Your task to perform on an android device: toggle javascript in the chrome app Image 0: 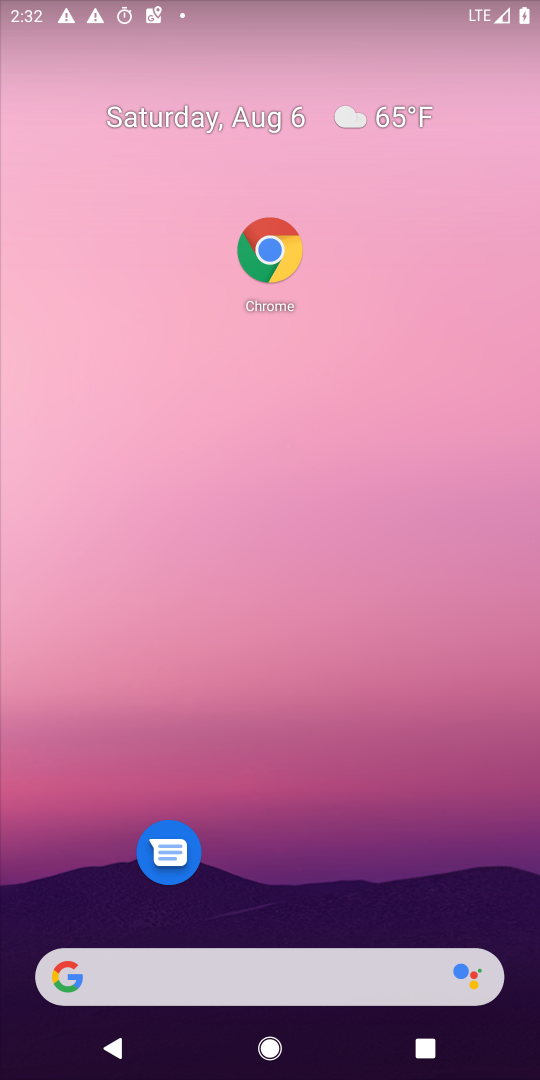
Step 0: press home button
Your task to perform on an android device: toggle javascript in the chrome app Image 1: 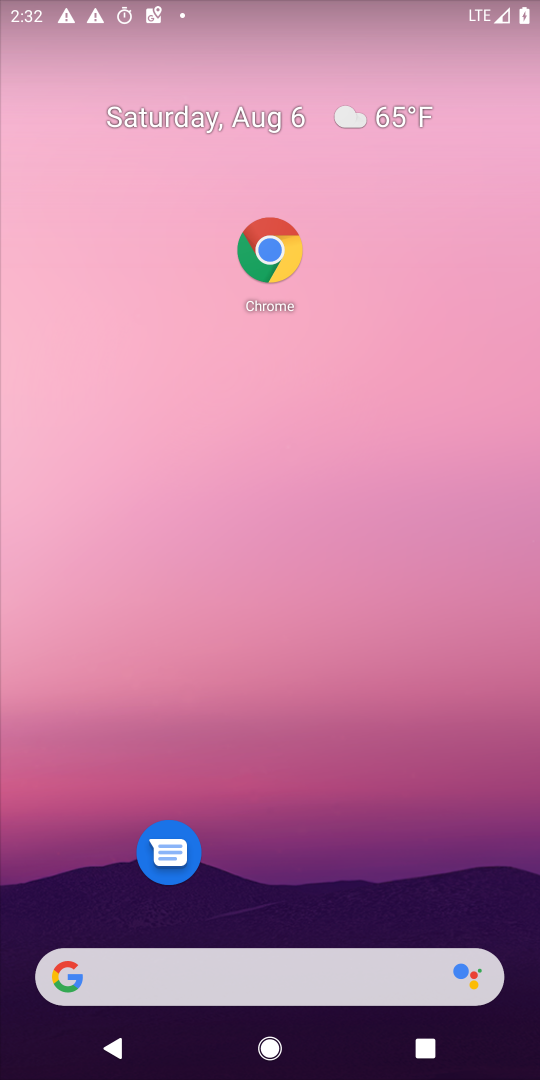
Step 1: drag from (361, 991) to (446, 345)
Your task to perform on an android device: toggle javascript in the chrome app Image 2: 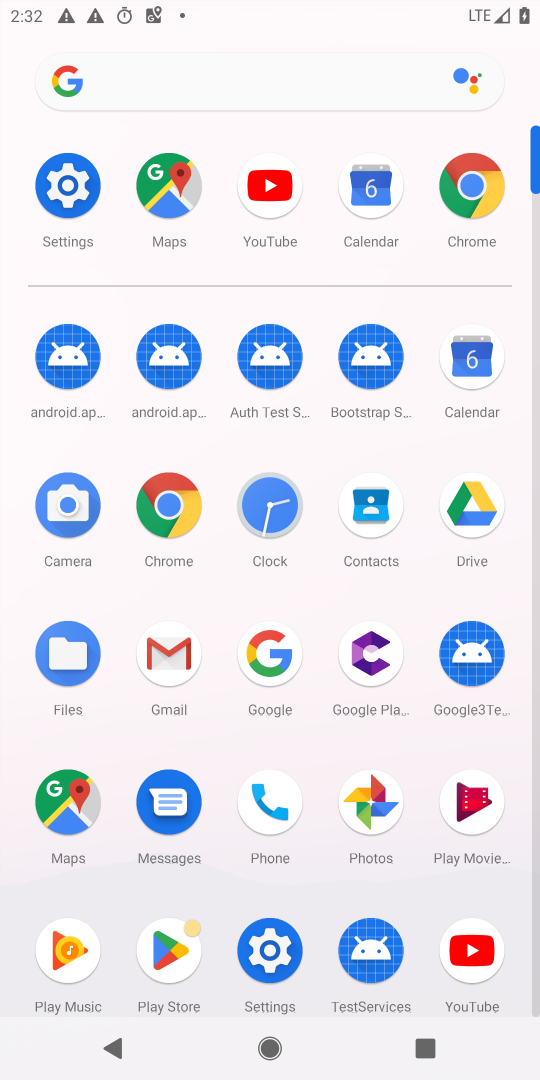
Step 2: click (472, 185)
Your task to perform on an android device: toggle javascript in the chrome app Image 3: 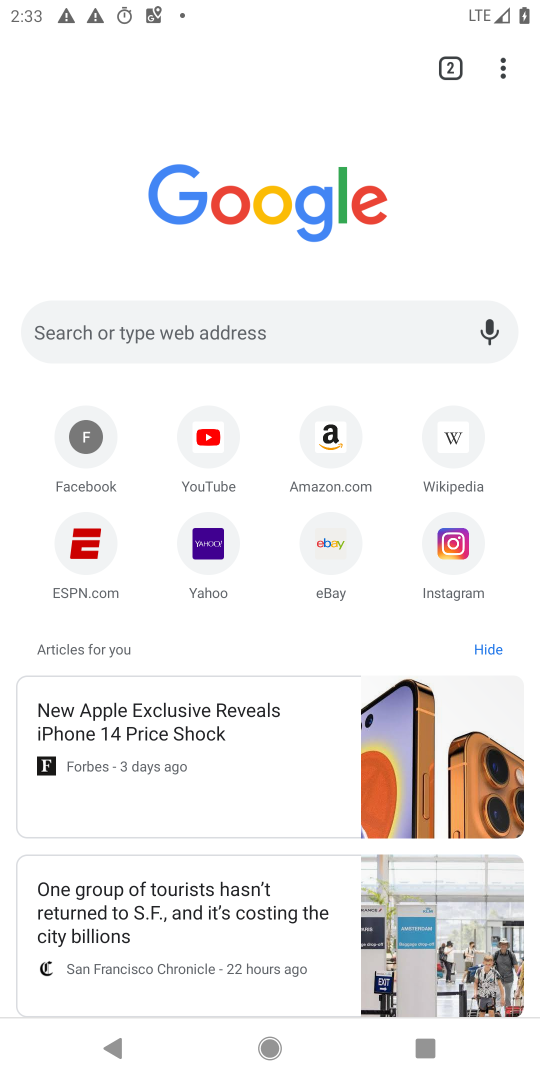
Step 3: click (510, 61)
Your task to perform on an android device: toggle javascript in the chrome app Image 4: 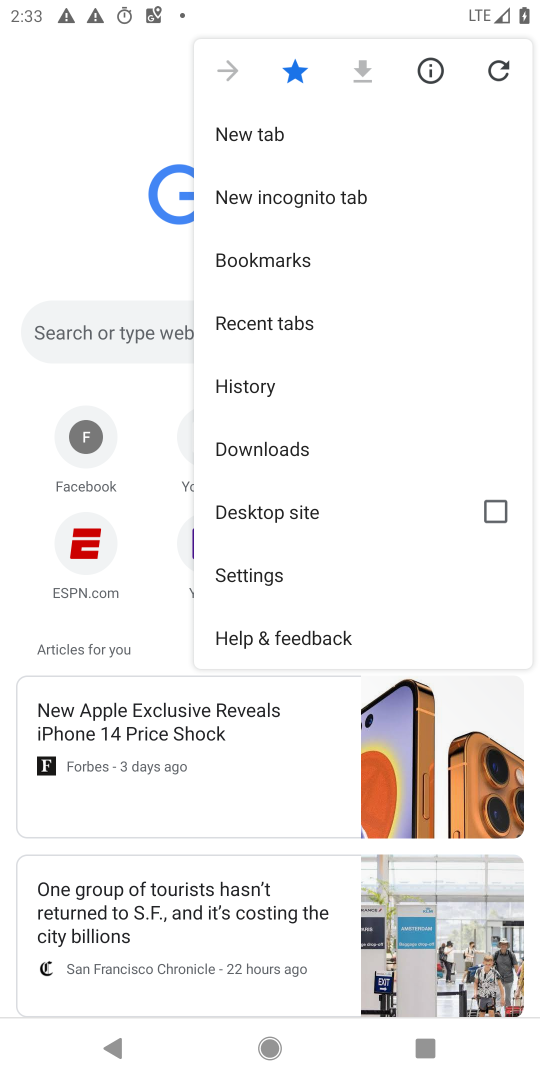
Step 4: click (245, 566)
Your task to perform on an android device: toggle javascript in the chrome app Image 5: 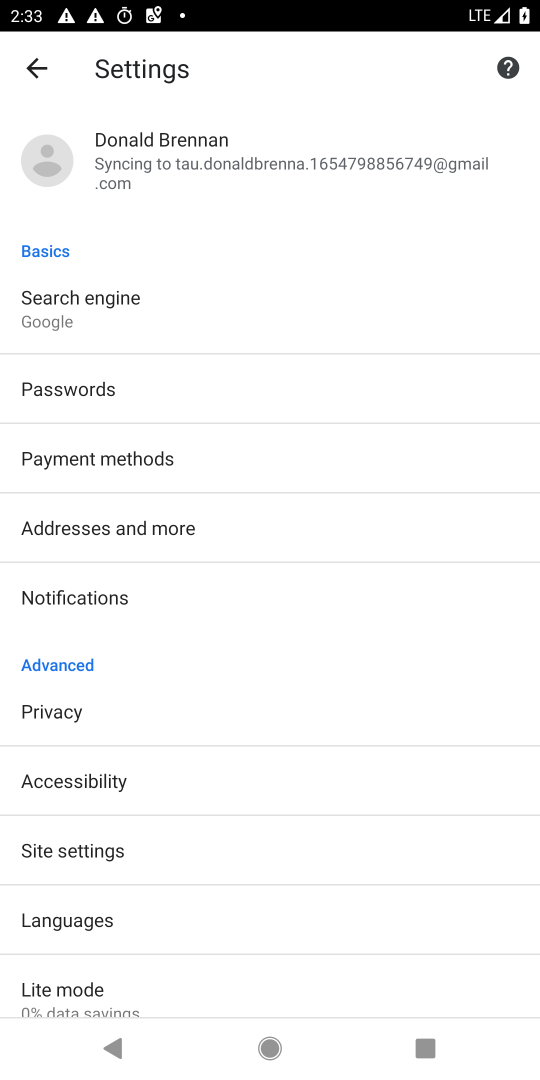
Step 5: click (76, 839)
Your task to perform on an android device: toggle javascript in the chrome app Image 6: 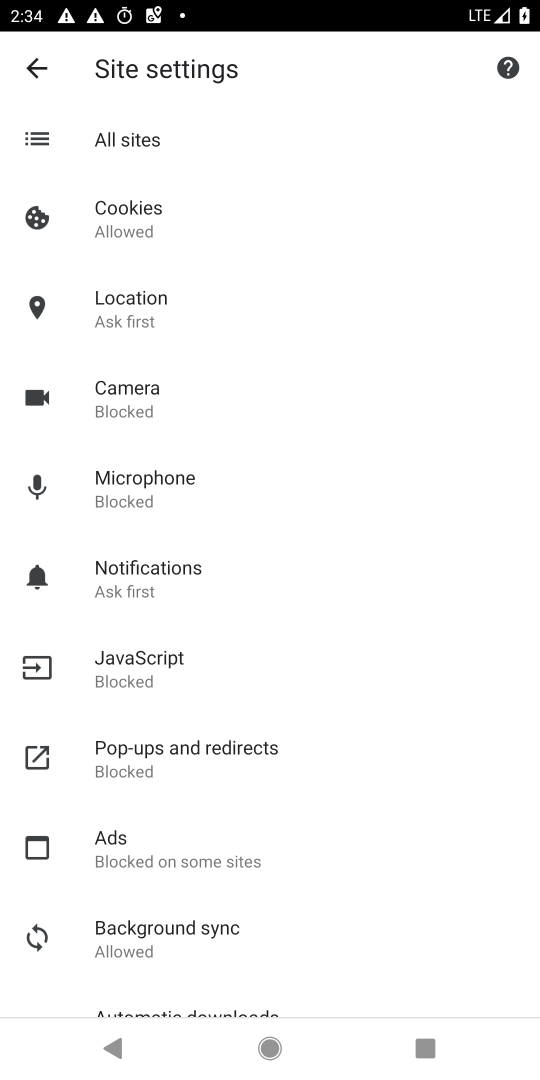
Step 6: click (134, 653)
Your task to perform on an android device: toggle javascript in the chrome app Image 7: 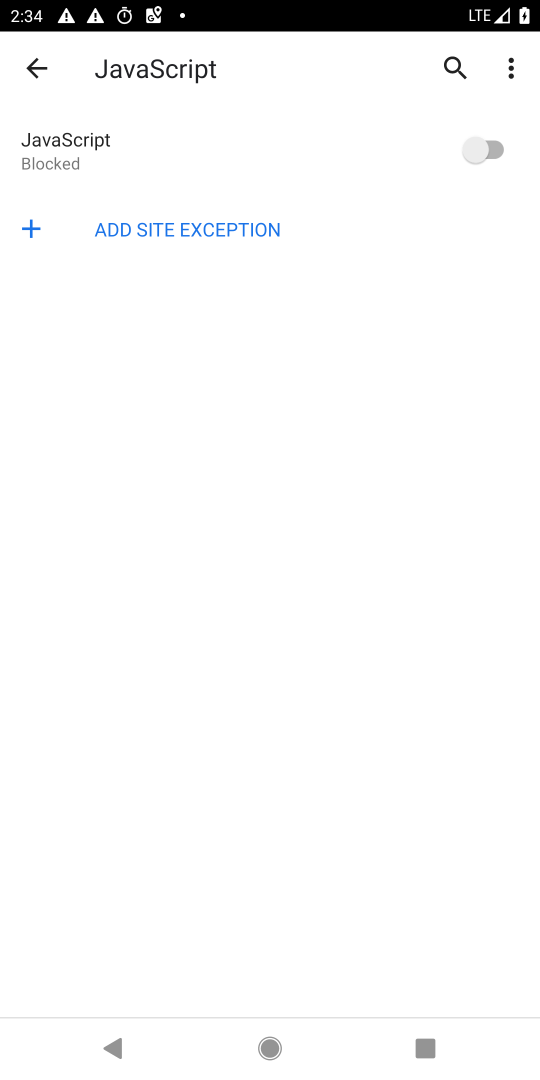
Step 7: task complete